Your task to perform on an android device: snooze an email in the gmail app Image 0: 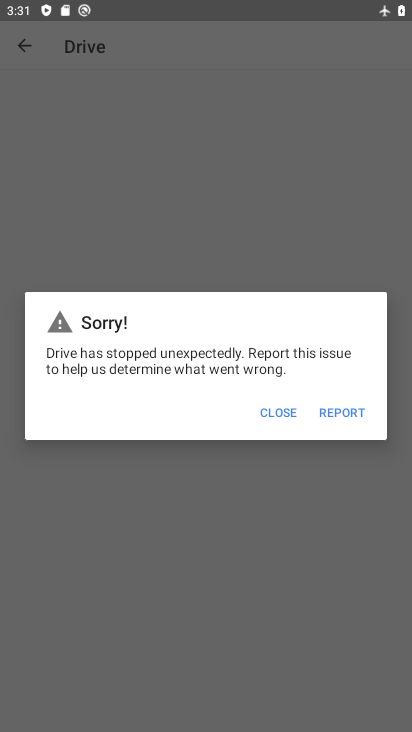
Step 0: press home button
Your task to perform on an android device: snooze an email in the gmail app Image 1: 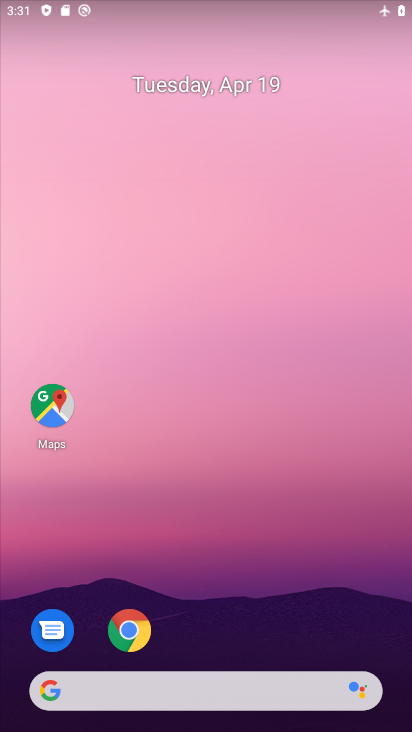
Step 1: drag from (268, 566) to (252, 151)
Your task to perform on an android device: snooze an email in the gmail app Image 2: 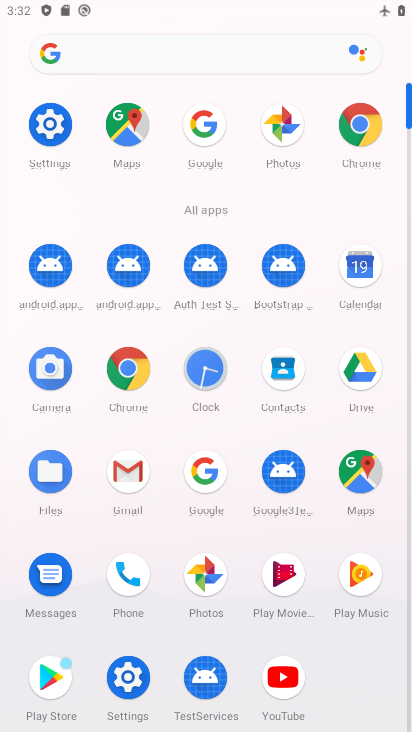
Step 2: click (127, 475)
Your task to perform on an android device: snooze an email in the gmail app Image 3: 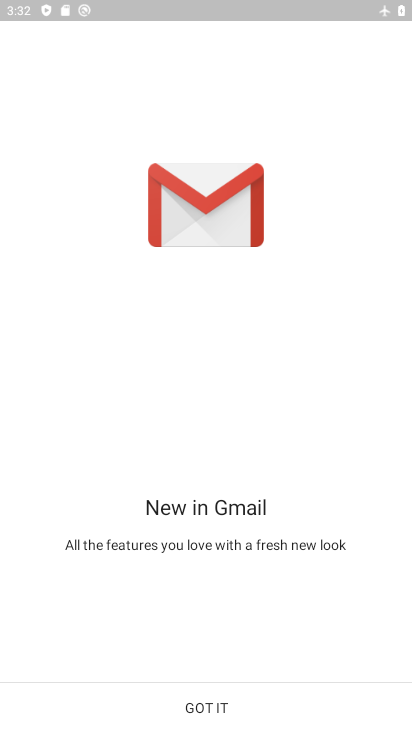
Step 3: click (210, 698)
Your task to perform on an android device: snooze an email in the gmail app Image 4: 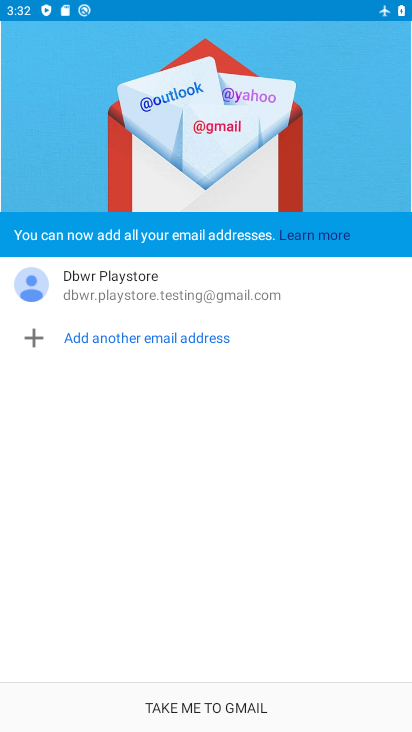
Step 4: click (197, 703)
Your task to perform on an android device: snooze an email in the gmail app Image 5: 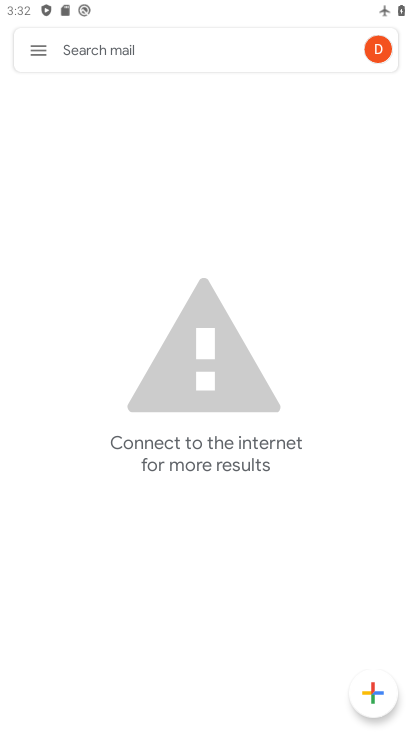
Step 5: task complete